Your task to perform on an android device: Show the shopping cart on newegg. Image 0: 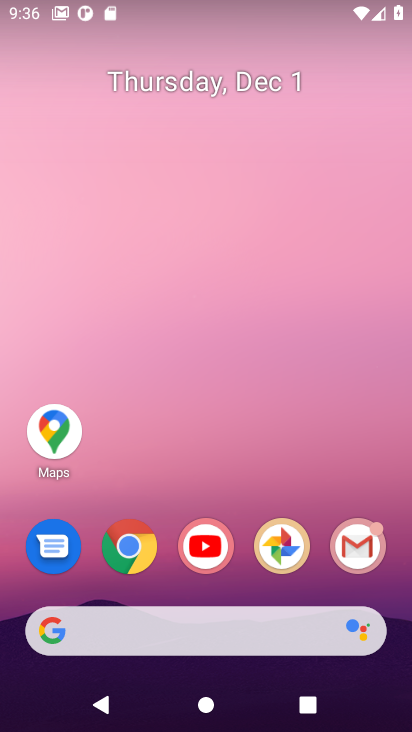
Step 0: click (136, 549)
Your task to perform on an android device: Show the shopping cart on newegg. Image 1: 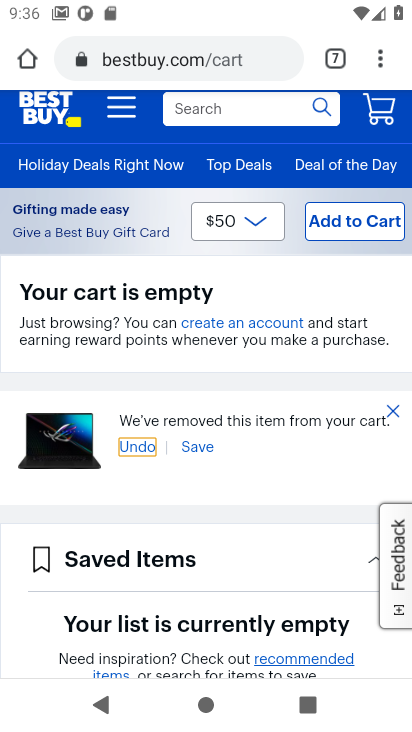
Step 1: click (142, 60)
Your task to perform on an android device: Show the shopping cart on newegg. Image 2: 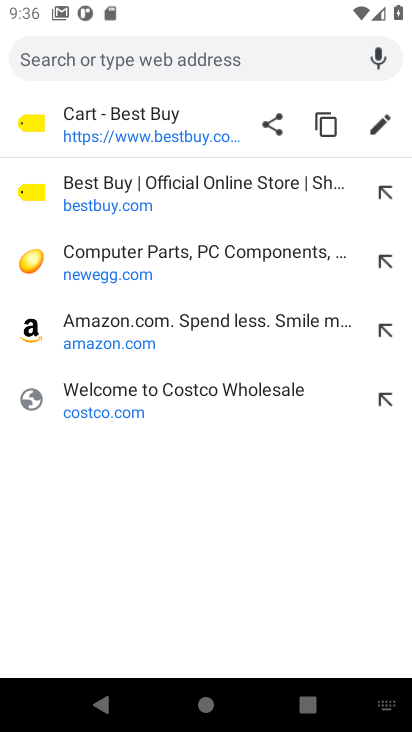
Step 2: click (91, 266)
Your task to perform on an android device: Show the shopping cart on newegg. Image 3: 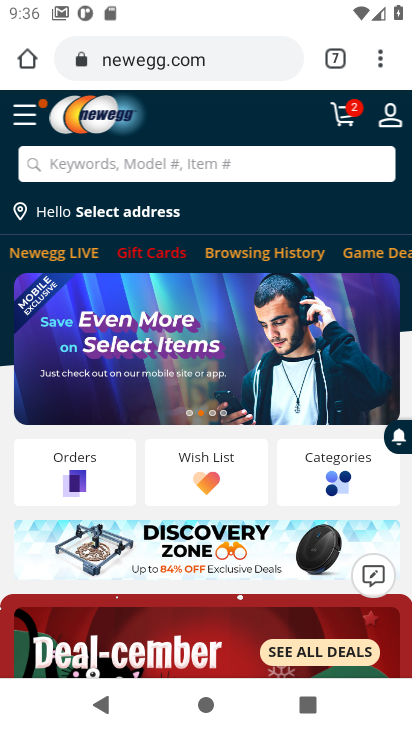
Step 3: click (341, 117)
Your task to perform on an android device: Show the shopping cart on newegg. Image 4: 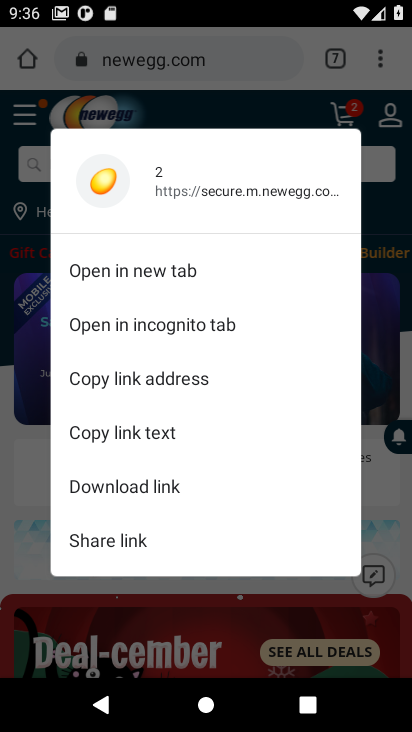
Step 4: click (349, 116)
Your task to perform on an android device: Show the shopping cart on newegg. Image 5: 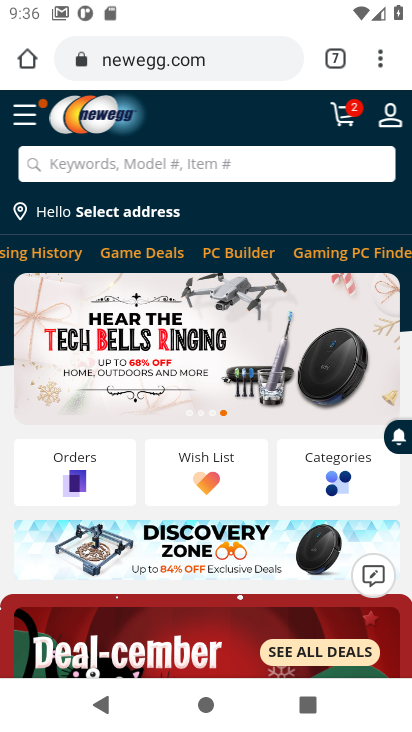
Step 5: click (349, 116)
Your task to perform on an android device: Show the shopping cart on newegg. Image 6: 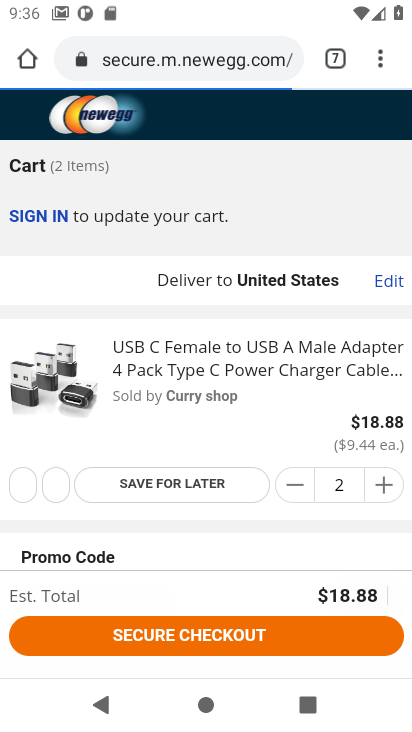
Step 6: click (349, 116)
Your task to perform on an android device: Show the shopping cart on newegg. Image 7: 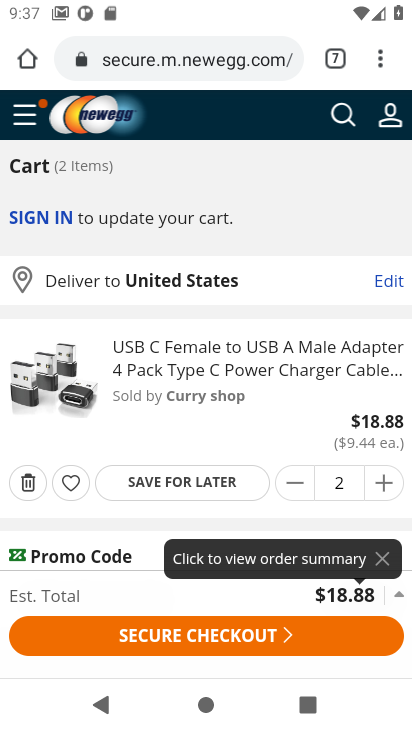
Step 7: task complete